Your task to perform on an android device: Search for "razer huntsman" on ebay, select the first entry, add it to the cart, then select checkout. Image 0: 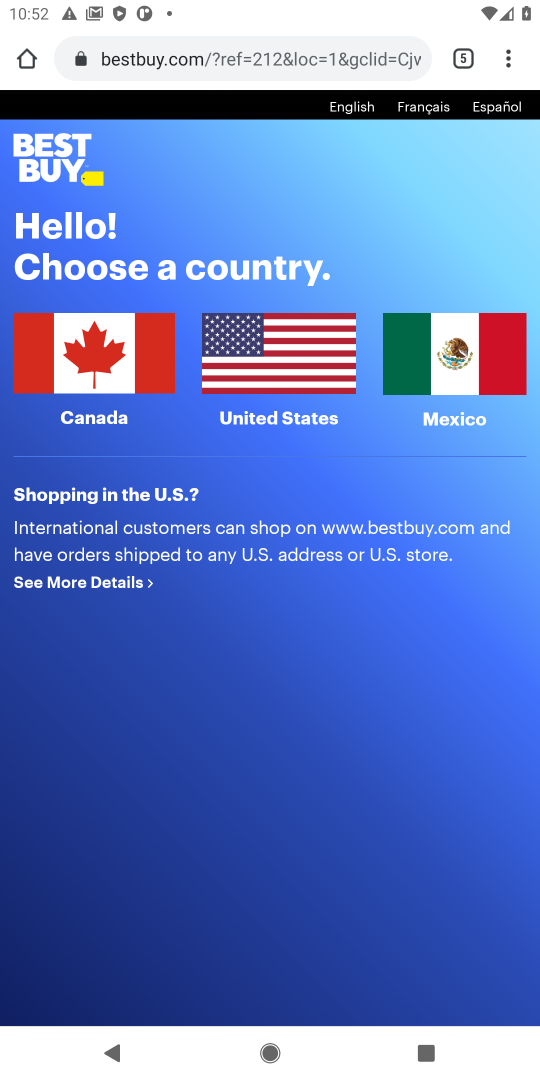
Step 0: click (61, 354)
Your task to perform on an android device: Search for "razer huntsman" on ebay, select the first entry, add it to the cart, then select checkout. Image 1: 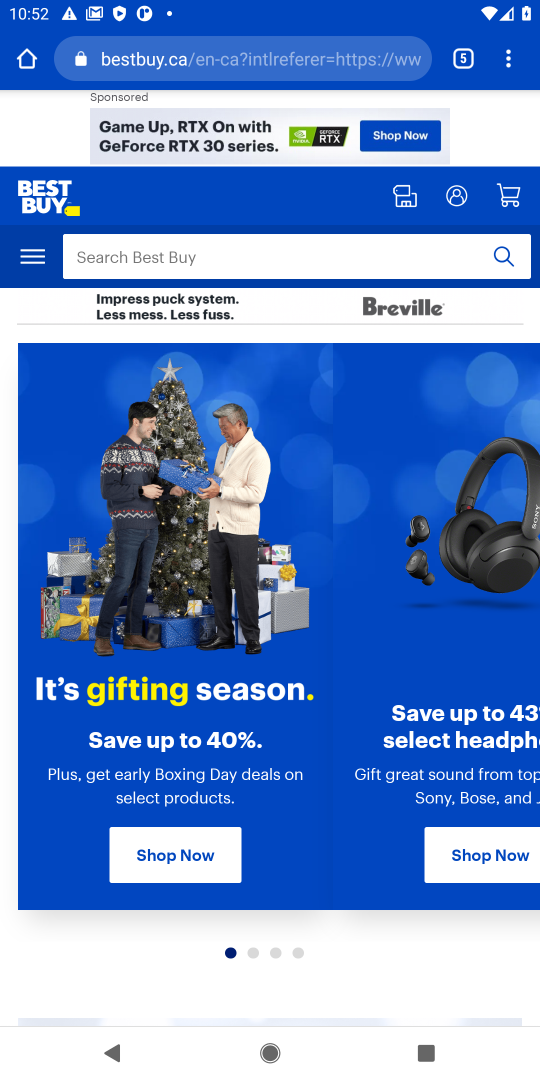
Step 1: task complete